Your task to perform on an android device: Open Google Image 0: 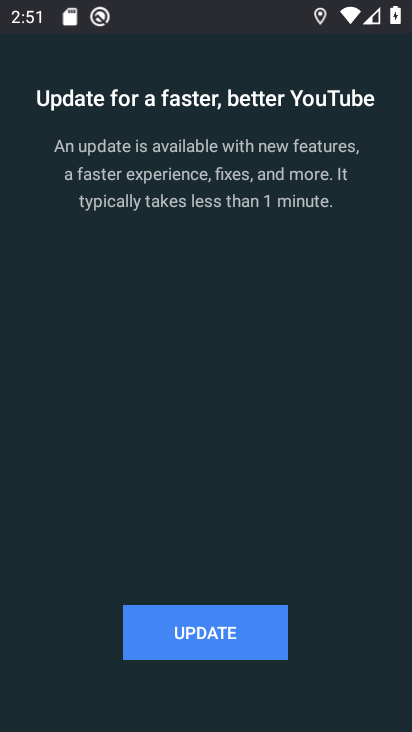
Step 0: drag from (256, 269) to (326, 249)
Your task to perform on an android device: Open Google Image 1: 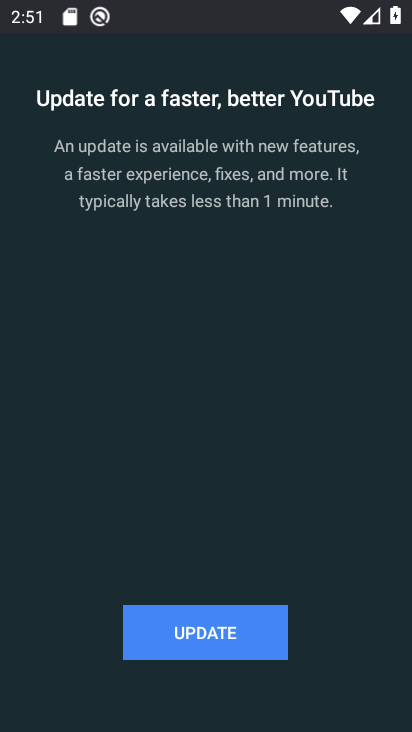
Step 1: task complete